Your task to perform on an android device: turn off translation in the chrome app Image 0: 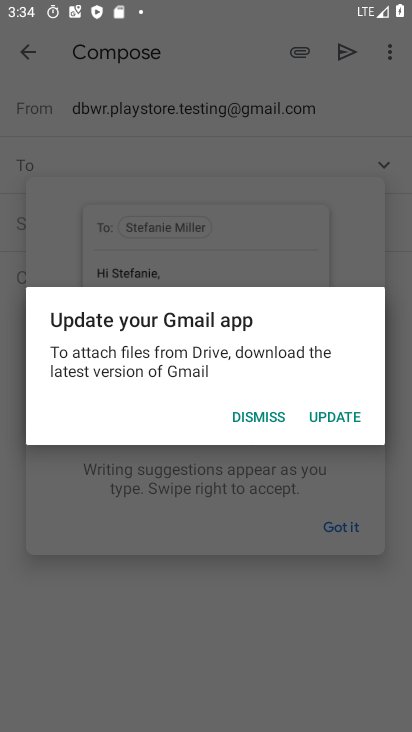
Step 0: press home button
Your task to perform on an android device: turn off translation in the chrome app Image 1: 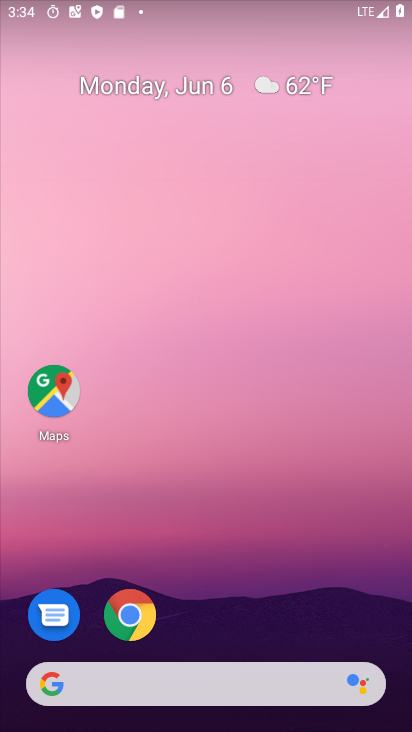
Step 1: drag from (225, 677) to (221, 17)
Your task to perform on an android device: turn off translation in the chrome app Image 2: 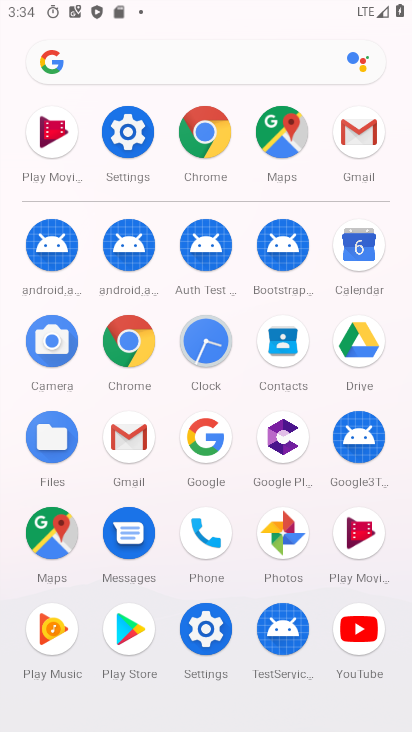
Step 2: click (130, 355)
Your task to perform on an android device: turn off translation in the chrome app Image 3: 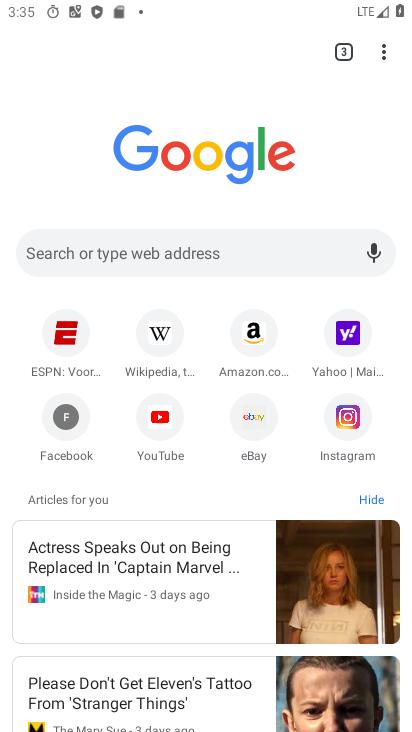
Step 3: drag from (377, 37) to (241, 446)
Your task to perform on an android device: turn off translation in the chrome app Image 4: 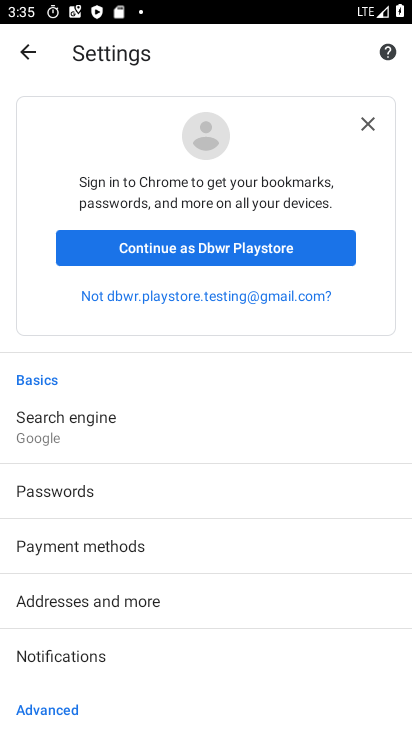
Step 4: drag from (187, 670) to (223, 243)
Your task to perform on an android device: turn off translation in the chrome app Image 5: 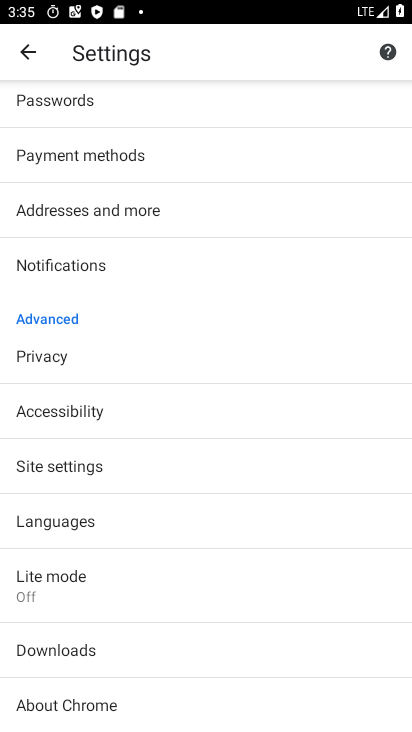
Step 5: click (107, 534)
Your task to perform on an android device: turn off translation in the chrome app Image 6: 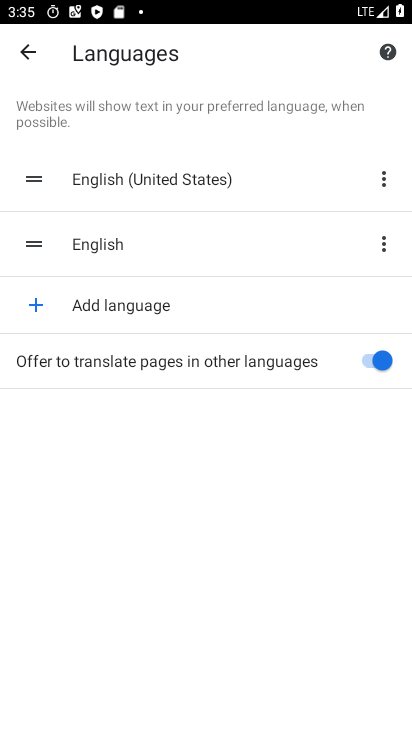
Step 6: click (378, 364)
Your task to perform on an android device: turn off translation in the chrome app Image 7: 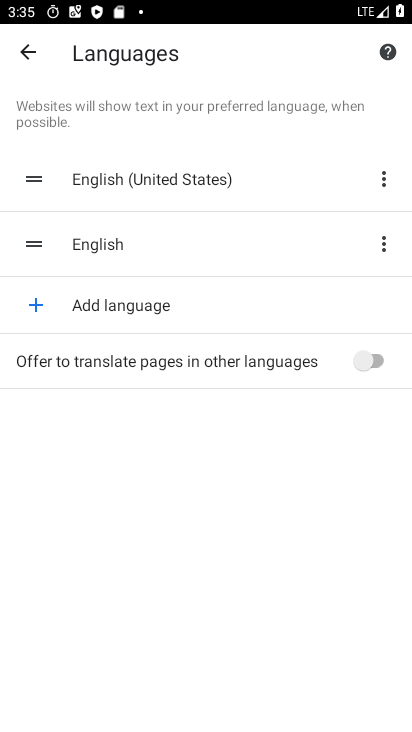
Step 7: task complete